Your task to perform on an android device: What is the speed of sound? Image 0: 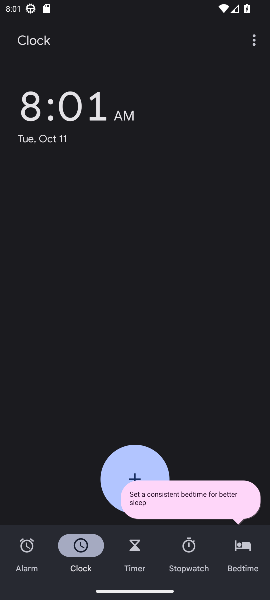
Step 0: press home button
Your task to perform on an android device: What is the speed of sound? Image 1: 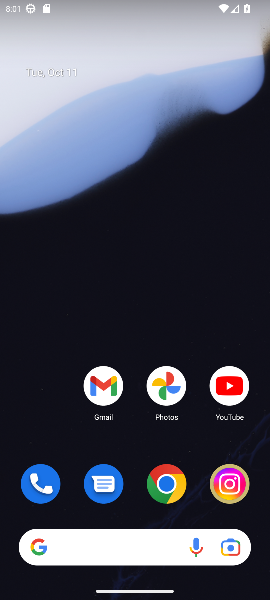
Step 1: click (168, 486)
Your task to perform on an android device: What is the speed of sound? Image 2: 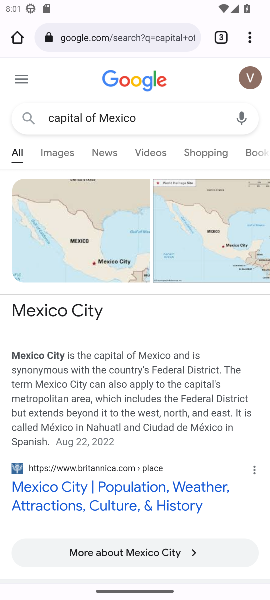
Step 2: click (163, 25)
Your task to perform on an android device: What is the speed of sound? Image 3: 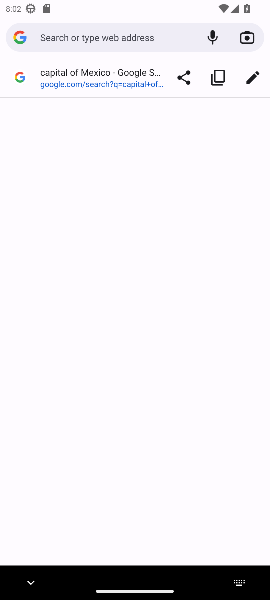
Step 3: type "What is the speed of sound?"
Your task to perform on an android device: What is the speed of sound? Image 4: 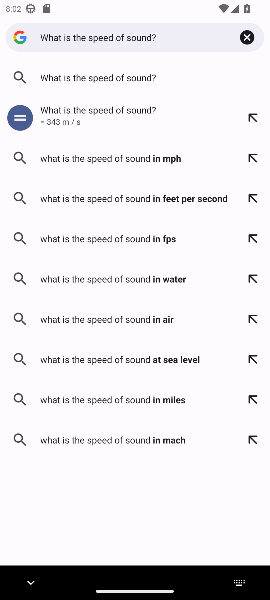
Step 4: click (113, 83)
Your task to perform on an android device: What is the speed of sound? Image 5: 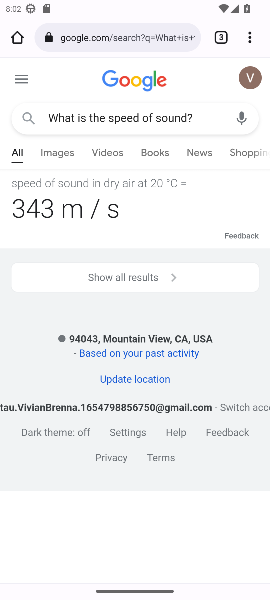
Step 5: task complete